Your task to perform on an android device: Open location settings Image 0: 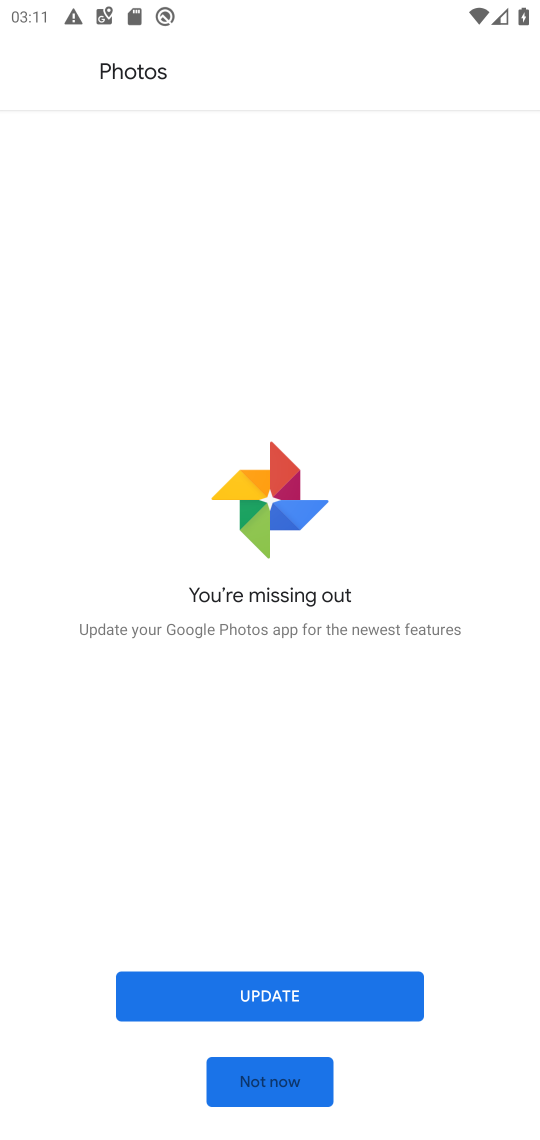
Step 0: press home button
Your task to perform on an android device: Open location settings Image 1: 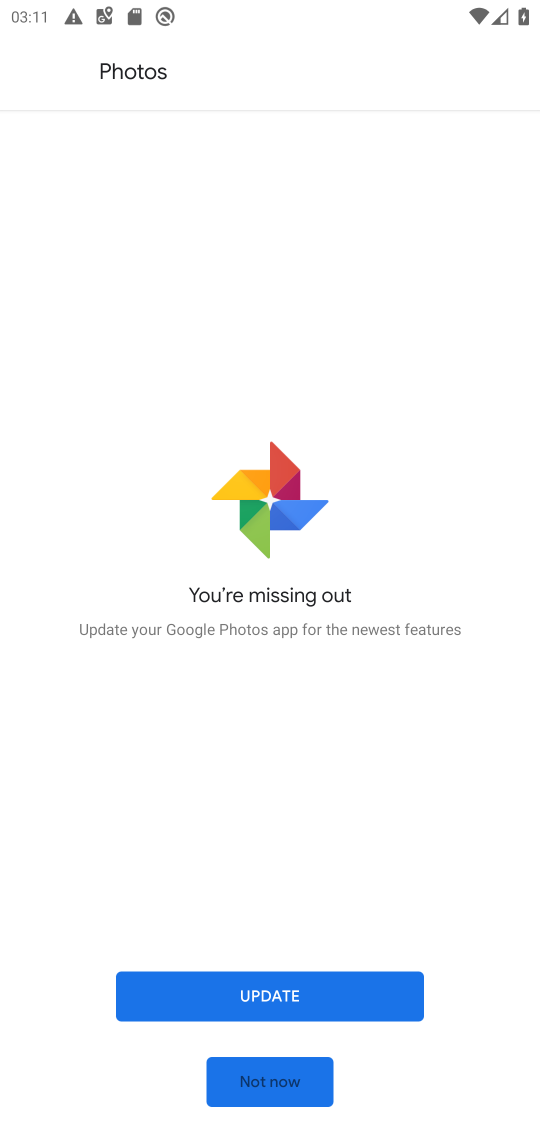
Step 1: press home button
Your task to perform on an android device: Open location settings Image 2: 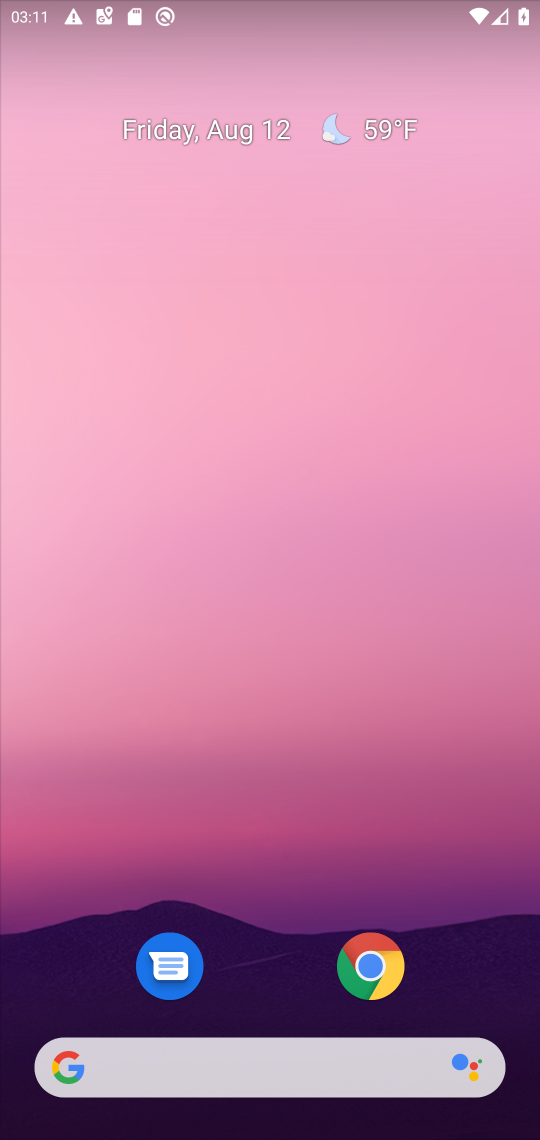
Step 2: drag from (234, 916) to (233, 108)
Your task to perform on an android device: Open location settings Image 3: 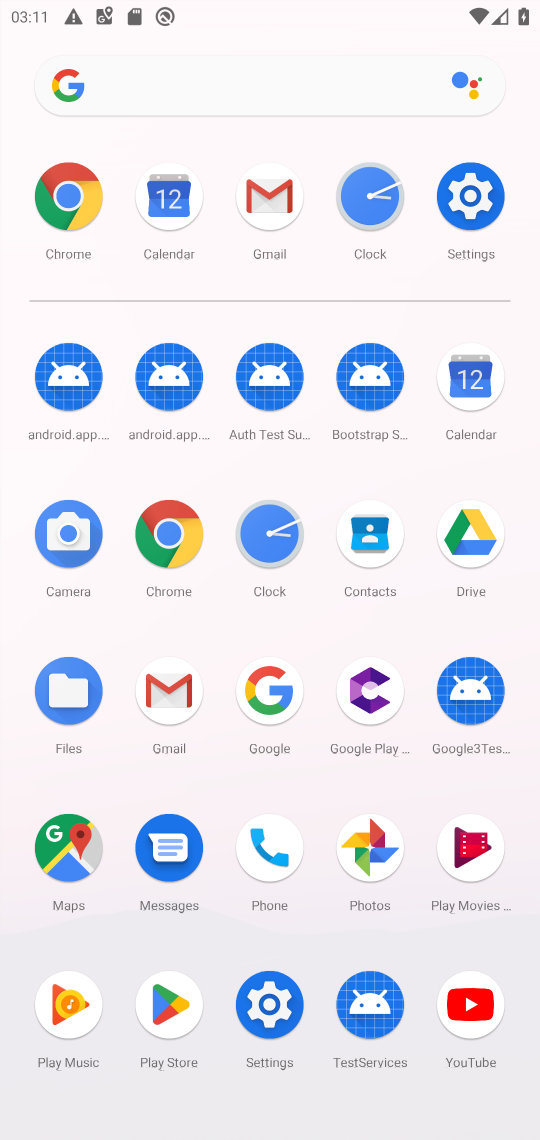
Step 3: click (277, 1009)
Your task to perform on an android device: Open location settings Image 4: 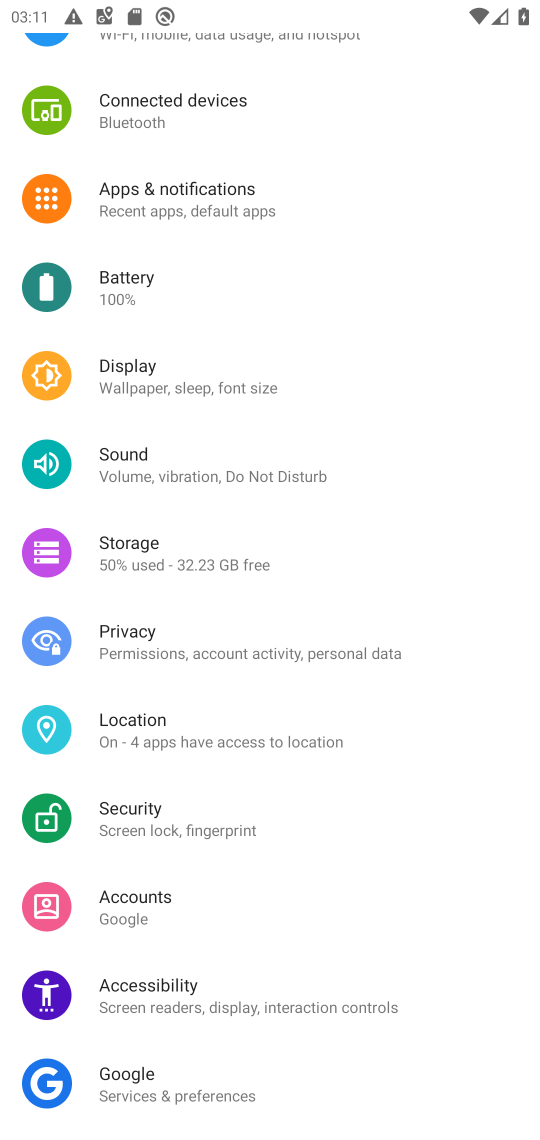
Step 4: click (192, 742)
Your task to perform on an android device: Open location settings Image 5: 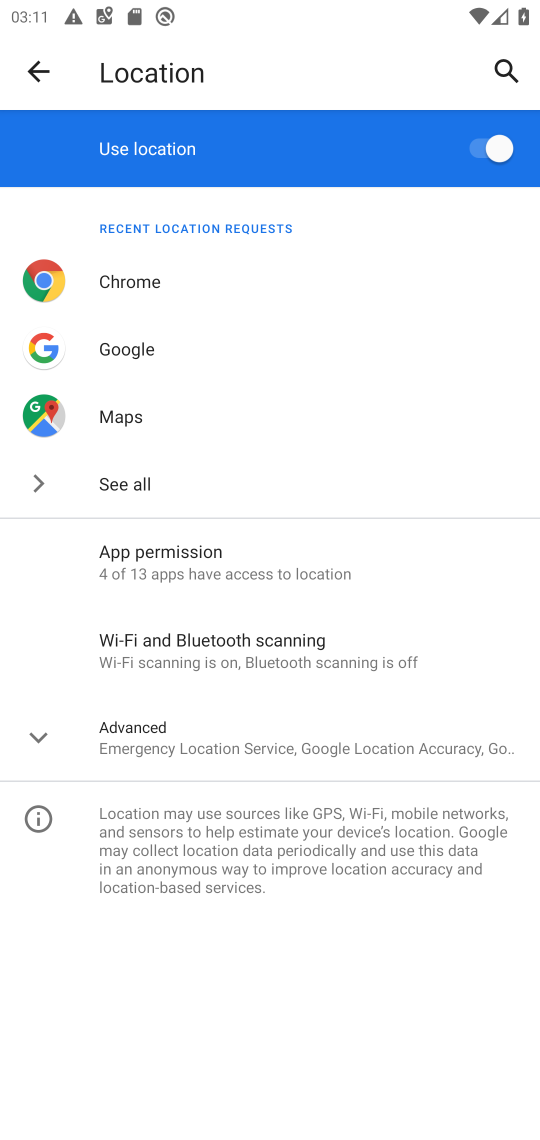
Step 5: task complete